Your task to perform on an android device: turn off location Image 0: 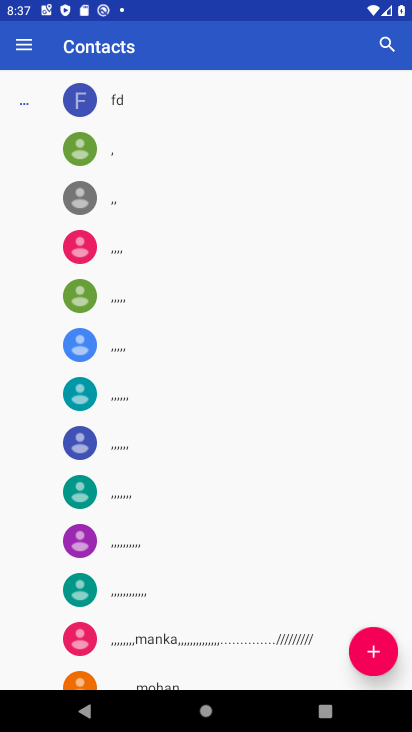
Step 0: press home button
Your task to perform on an android device: turn off location Image 1: 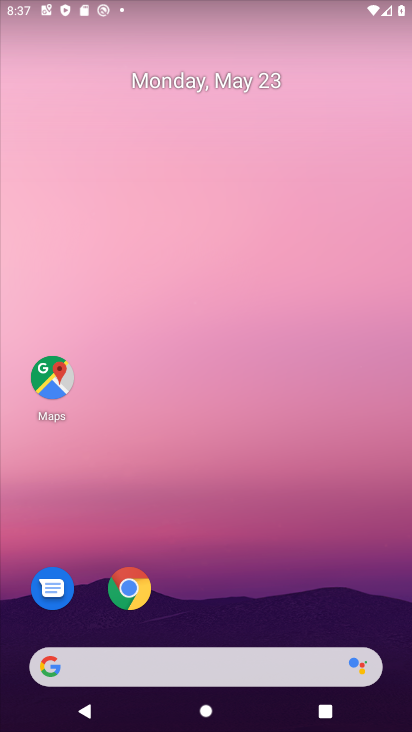
Step 1: drag from (389, 644) to (353, 183)
Your task to perform on an android device: turn off location Image 2: 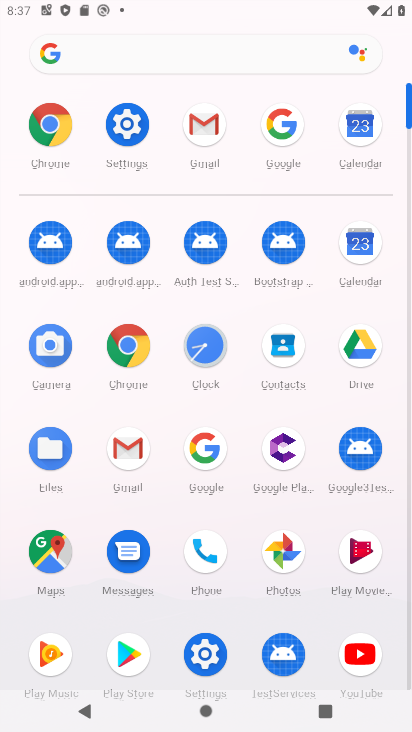
Step 2: click (117, 124)
Your task to perform on an android device: turn off location Image 3: 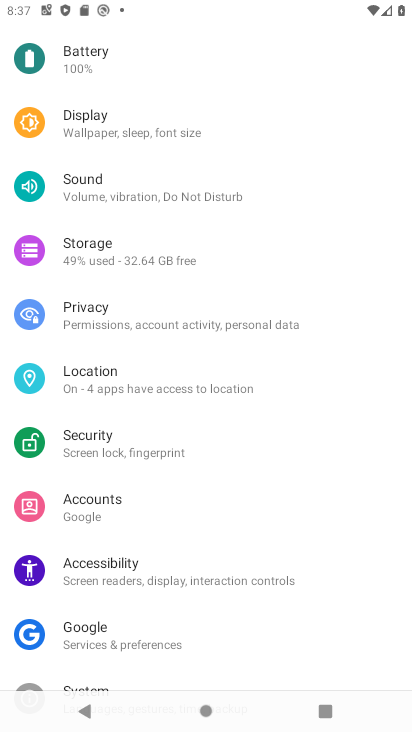
Step 3: click (114, 380)
Your task to perform on an android device: turn off location Image 4: 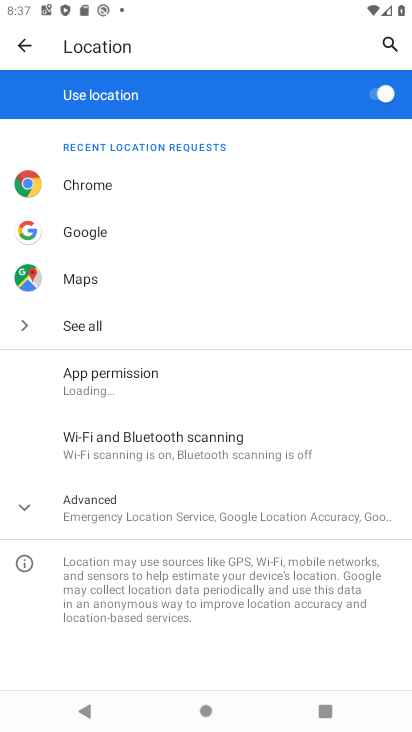
Step 4: click (374, 95)
Your task to perform on an android device: turn off location Image 5: 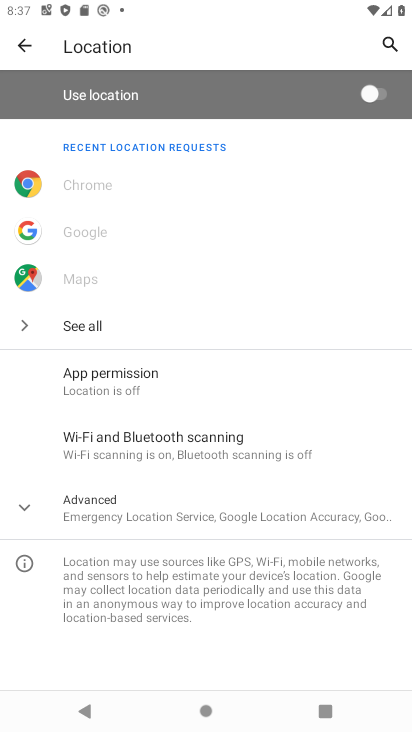
Step 5: task complete